Your task to perform on an android device: Open privacy settings Image 0: 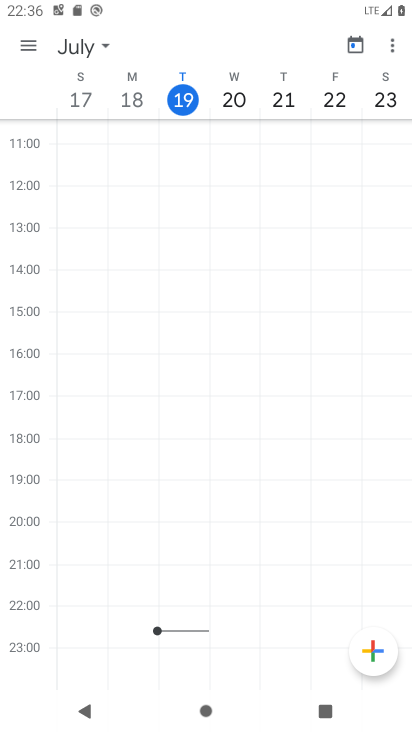
Step 0: press home button
Your task to perform on an android device: Open privacy settings Image 1: 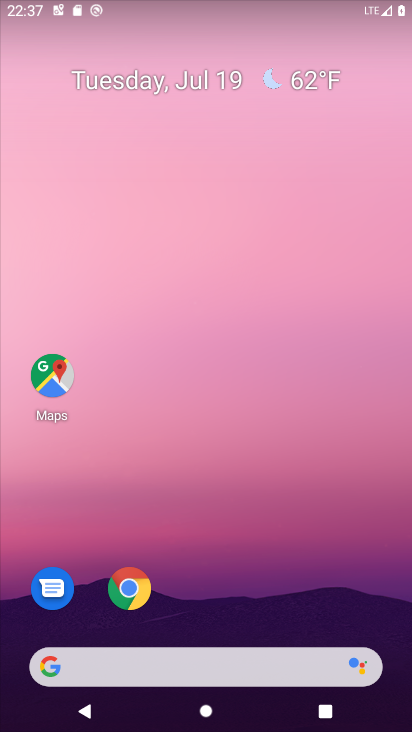
Step 1: click (240, 76)
Your task to perform on an android device: Open privacy settings Image 2: 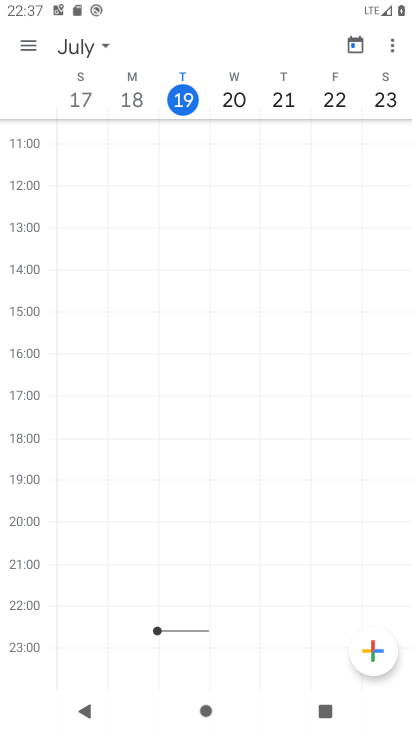
Step 2: press home button
Your task to perform on an android device: Open privacy settings Image 3: 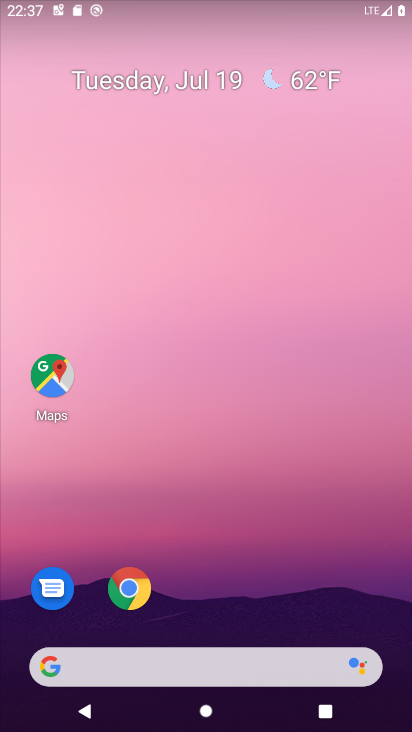
Step 3: drag from (189, 608) to (216, 70)
Your task to perform on an android device: Open privacy settings Image 4: 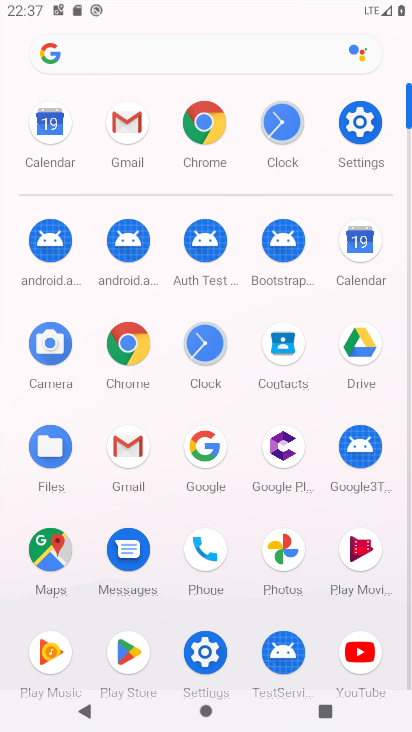
Step 4: click (358, 124)
Your task to perform on an android device: Open privacy settings Image 5: 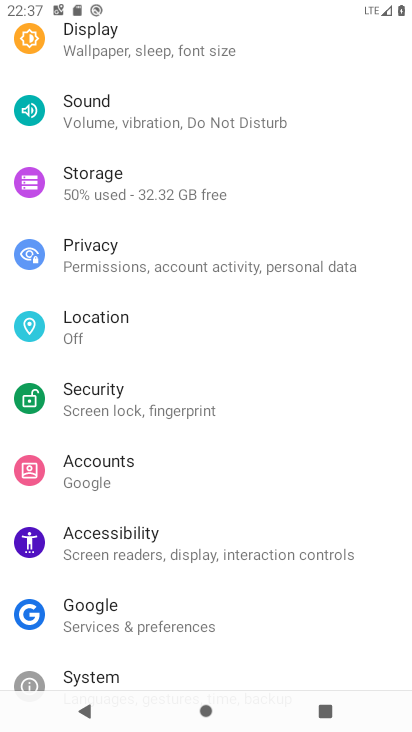
Step 5: click (96, 249)
Your task to perform on an android device: Open privacy settings Image 6: 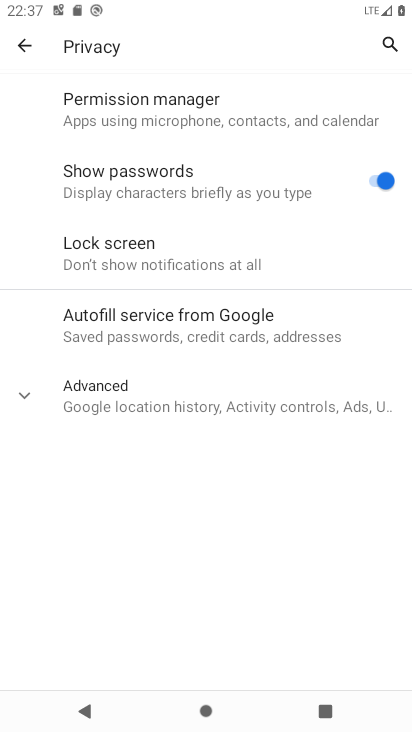
Step 6: task complete